Your task to perform on an android device: Open calendar and show me the first week of next month Image 0: 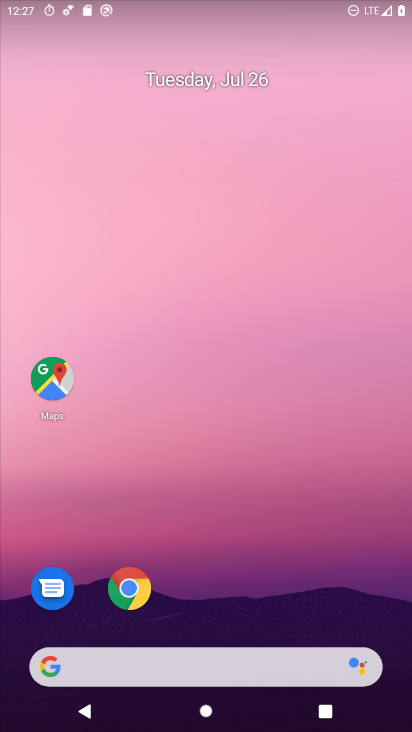
Step 0: drag from (262, 574) to (204, 175)
Your task to perform on an android device: Open calendar and show me the first week of next month Image 1: 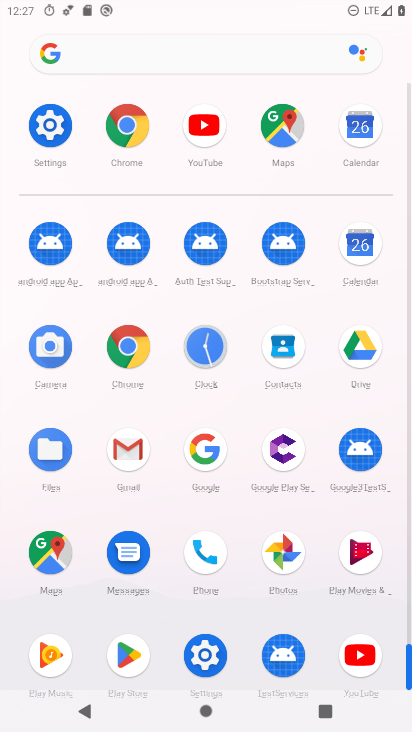
Step 1: click (355, 267)
Your task to perform on an android device: Open calendar and show me the first week of next month Image 2: 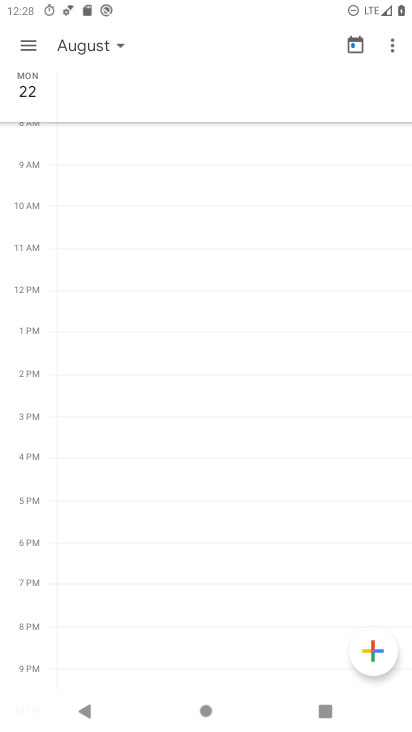
Step 2: click (111, 53)
Your task to perform on an android device: Open calendar and show me the first week of next month Image 3: 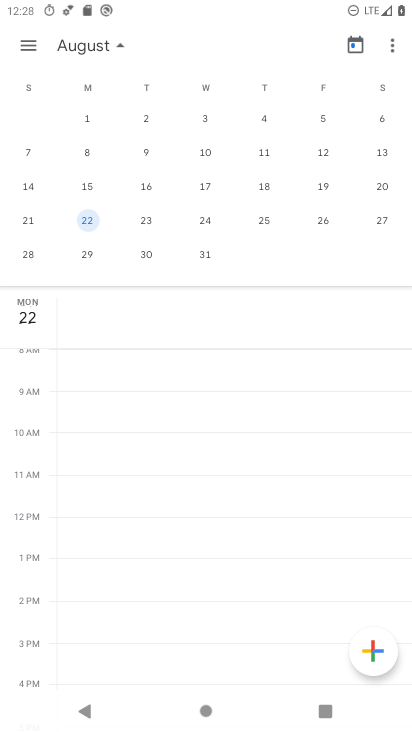
Step 3: click (89, 116)
Your task to perform on an android device: Open calendar and show me the first week of next month Image 4: 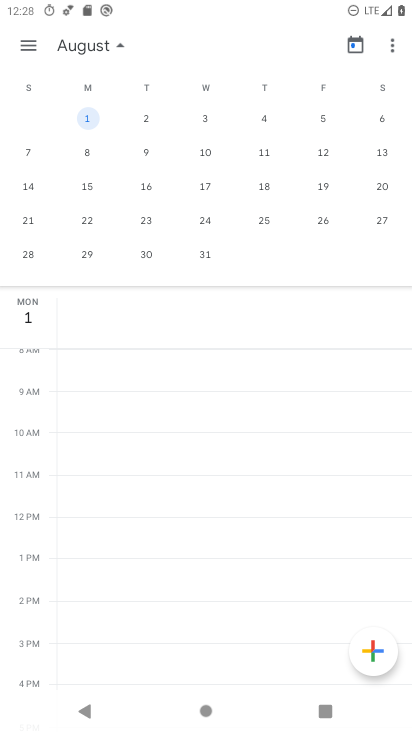
Step 4: click (105, 42)
Your task to perform on an android device: Open calendar and show me the first week of next month Image 5: 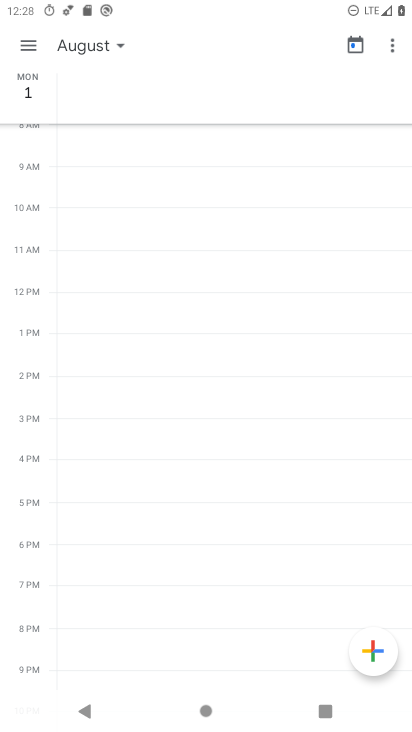
Step 5: click (22, 43)
Your task to perform on an android device: Open calendar and show me the first week of next month Image 6: 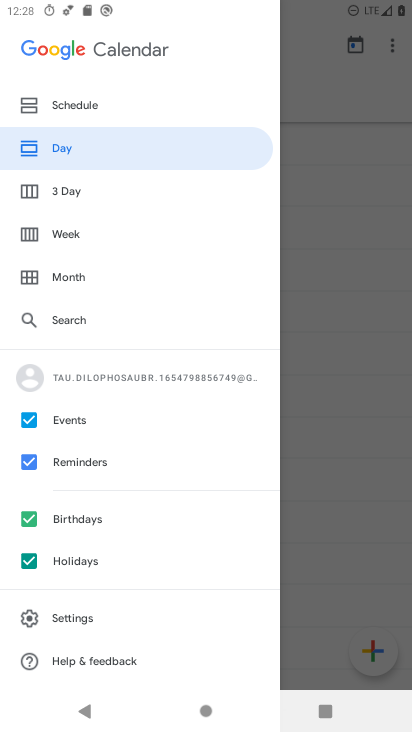
Step 6: click (60, 234)
Your task to perform on an android device: Open calendar and show me the first week of next month Image 7: 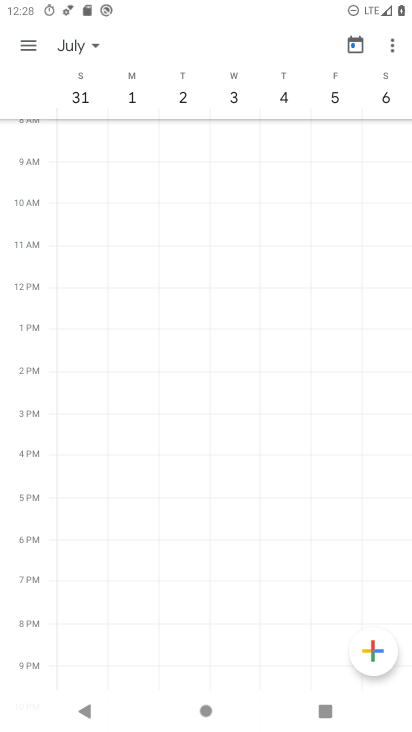
Step 7: task complete